Your task to perform on an android device: clear all cookies in the chrome app Image 0: 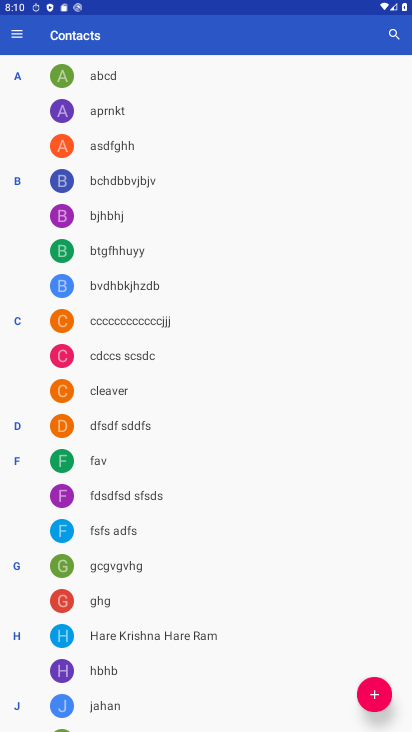
Step 0: press home button
Your task to perform on an android device: clear all cookies in the chrome app Image 1: 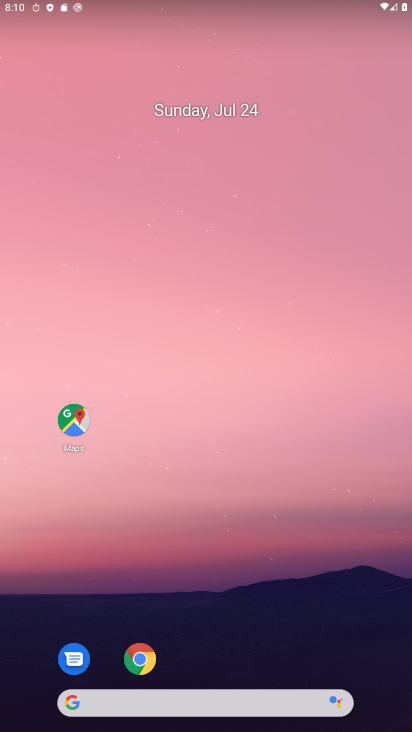
Step 1: click (126, 643)
Your task to perform on an android device: clear all cookies in the chrome app Image 2: 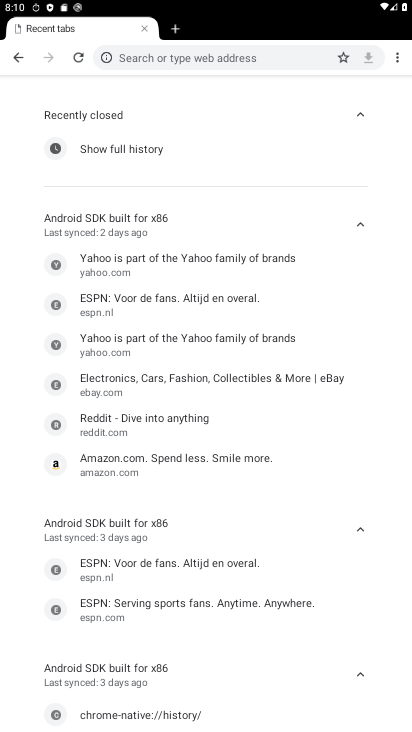
Step 2: click (392, 62)
Your task to perform on an android device: clear all cookies in the chrome app Image 3: 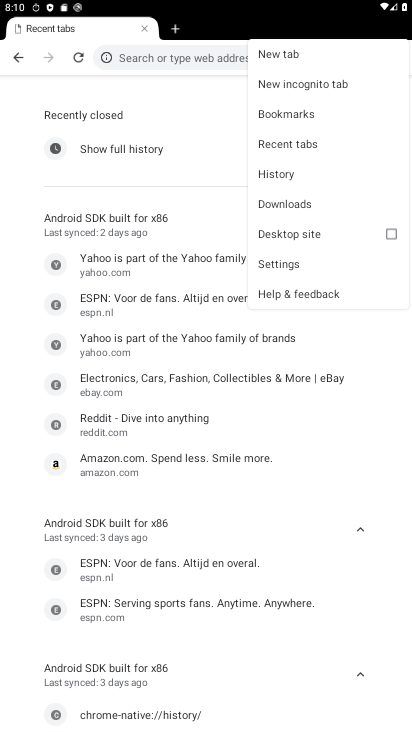
Step 3: click (271, 174)
Your task to perform on an android device: clear all cookies in the chrome app Image 4: 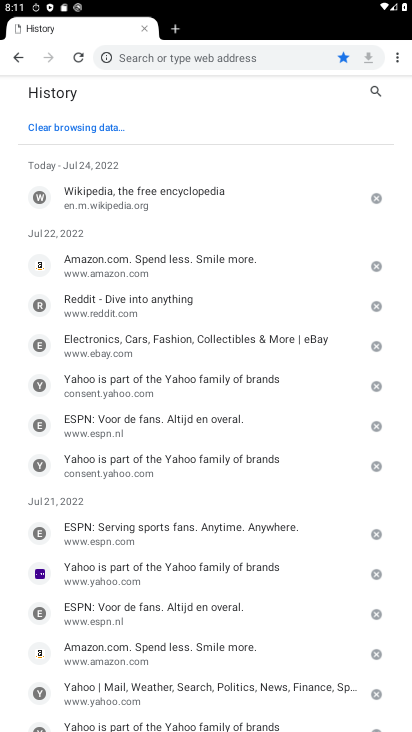
Step 4: click (75, 126)
Your task to perform on an android device: clear all cookies in the chrome app Image 5: 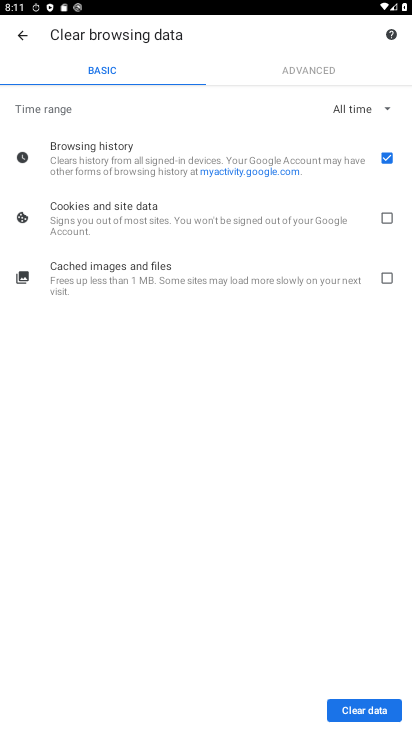
Step 5: click (386, 222)
Your task to perform on an android device: clear all cookies in the chrome app Image 6: 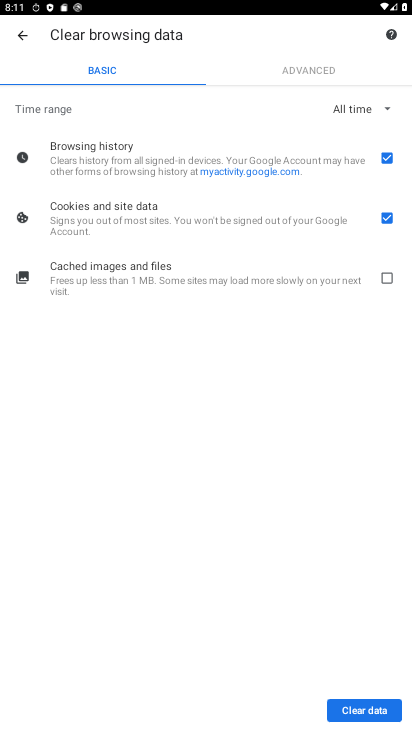
Step 6: click (388, 152)
Your task to perform on an android device: clear all cookies in the chrome app Image 7: 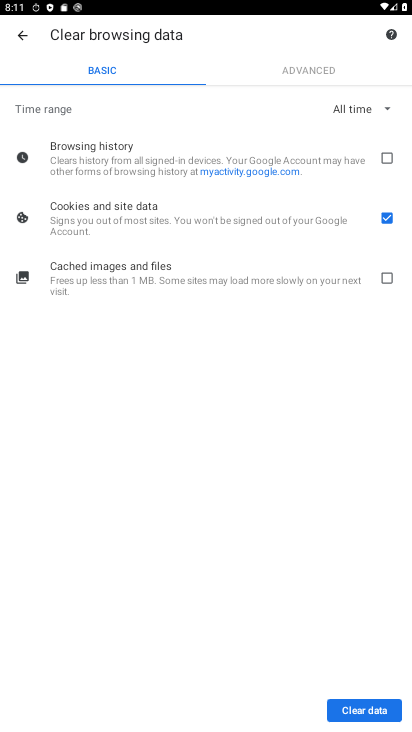
Step 7: click (375, 701)
Your task to perform on an android device: clear all cookies in the chrome app Image 8: 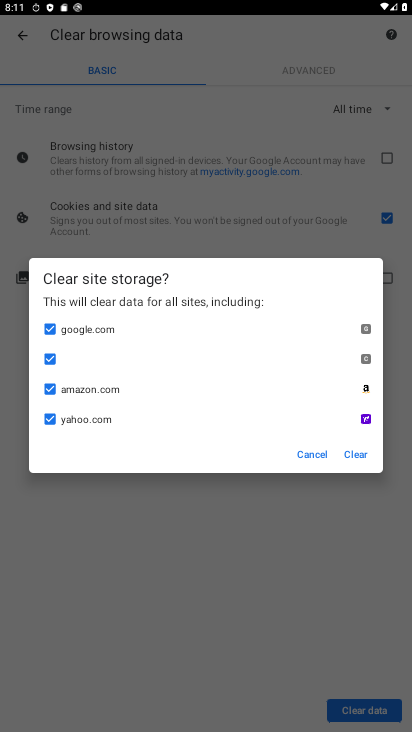
Step 8: click (355, 459)
Your task to perform on an android device: clear all cookies in the chrome app Image 9: 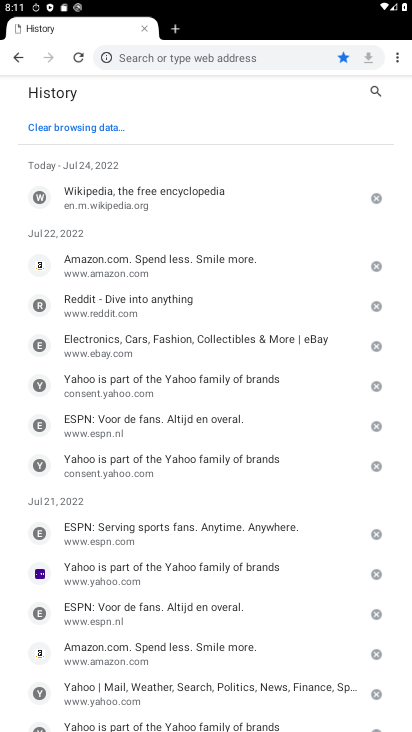
Step 9: task complete